Your task to perform on an android device: Open the stopwatch Image 0: 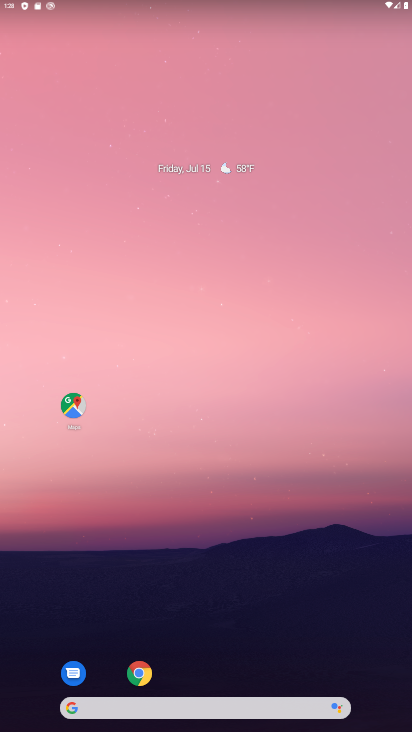
Step 0: drag from (226, 668) to (266, 220)
Your task to perform on an android device: Open the stopwatch Image 1: 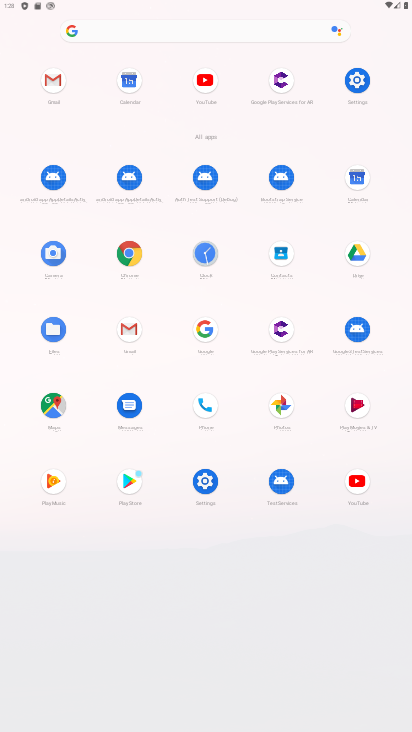
Step 1: click (209, 249)
Your task to perform on an android device: Open the stopwatch Image 2: 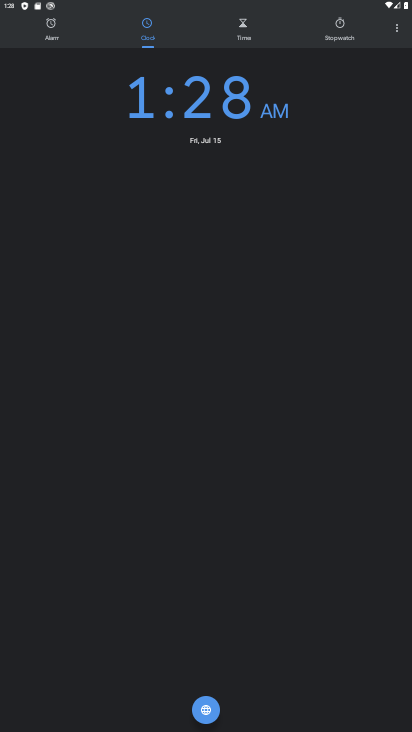
Step 2: click (338, 32)
Your task to perform on an android device: Open the stopwatch Image 3: 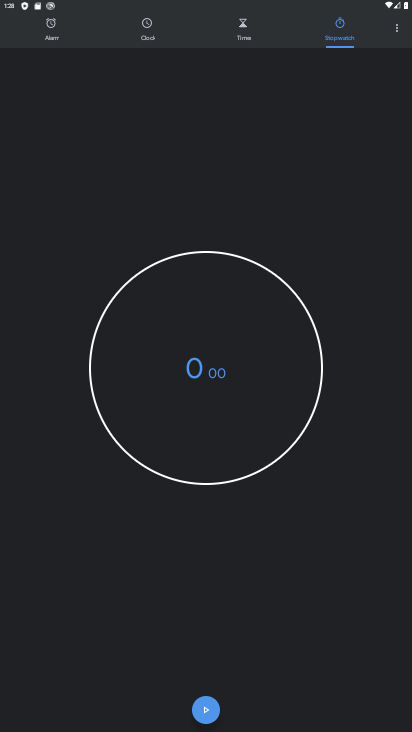
Step 3: click (211, 712)
Your task to perform on an android device: Open the stopwatch Image 4: 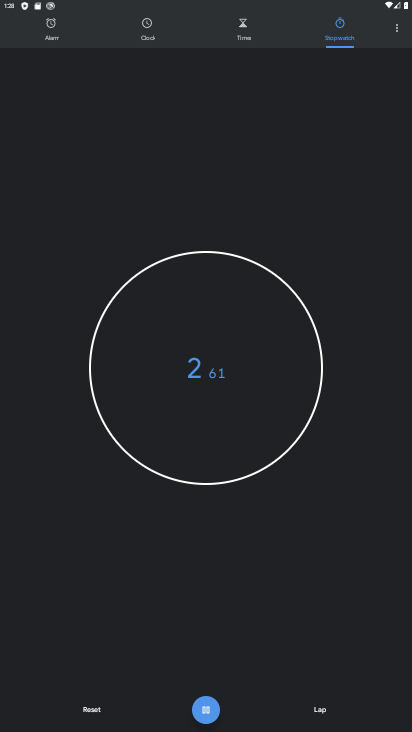
Step 4: task complete